Your task to perform on an android device: Check the weather Image 0: 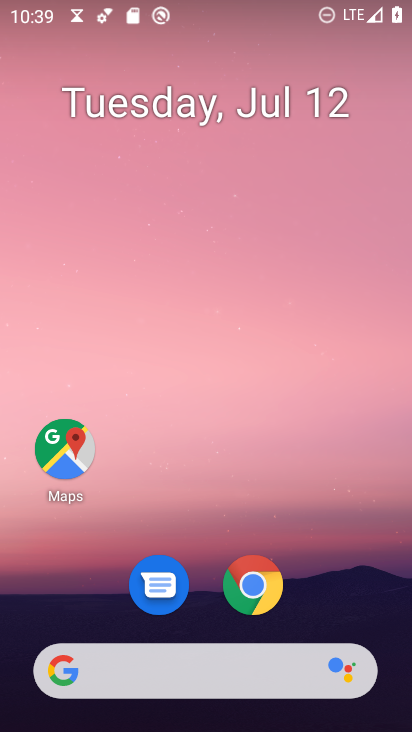
Step 0: press home button
Your task to perform on an android device: Check the weather Image 1: 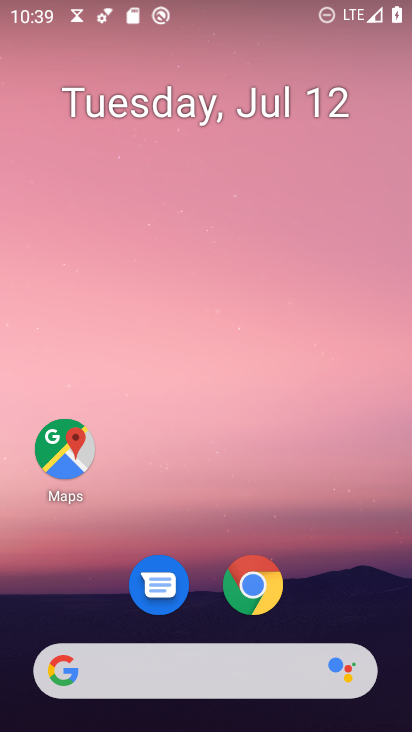
Step 1: click (157, 669)
Your task to perform on an android device: Check the weather Image 2: 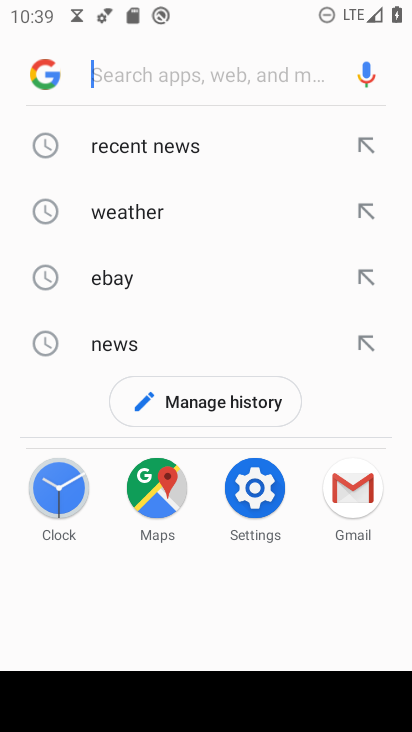
Step 2: click (139, 213)
Your task to perform on an android device: Check the weather Image 3: 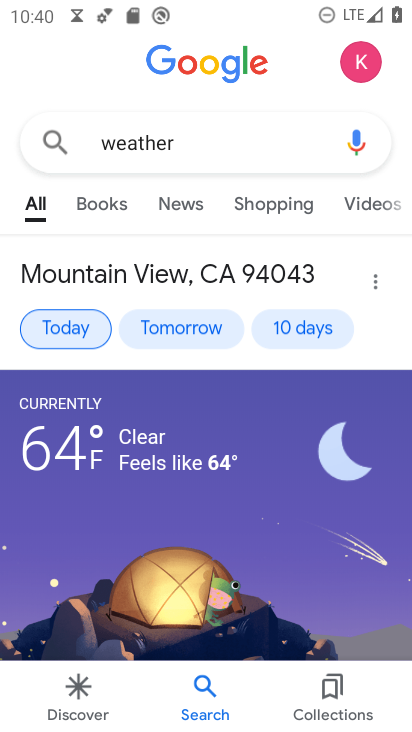
Step 3: task complete